Your task to perform on an android device: Go to settings Image 0: 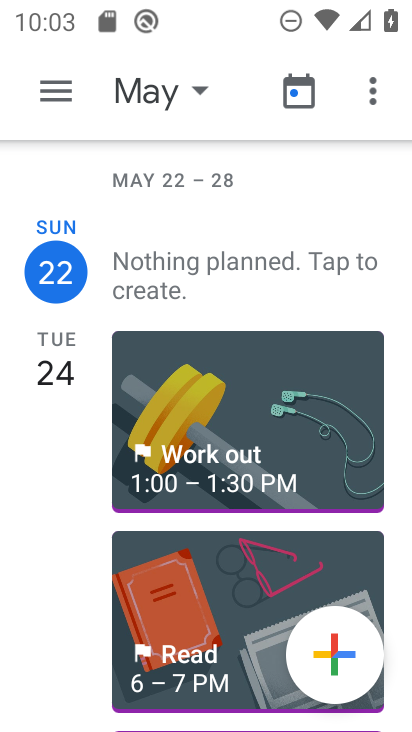
Step 0: press home button
Your task to perform on an android device: Go to settings Image 1: 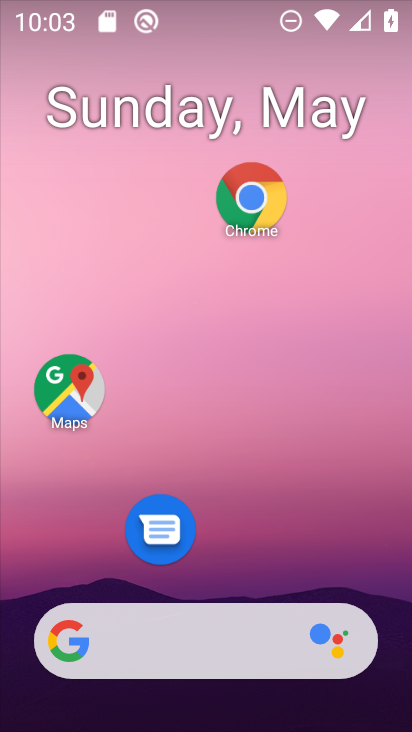
Step 1: drag from (254, 561) to (364, 101)
Your task to perform on an android device: Go to settings Image 2: 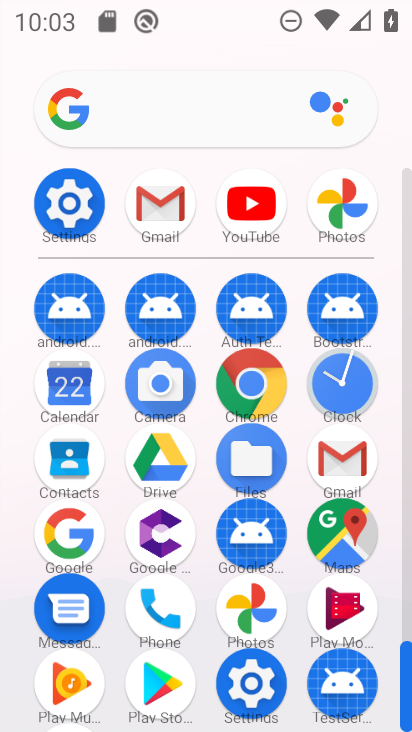
Step 2: click (71, 207)
Your task to perform on an android device: Go to settings Image 3: 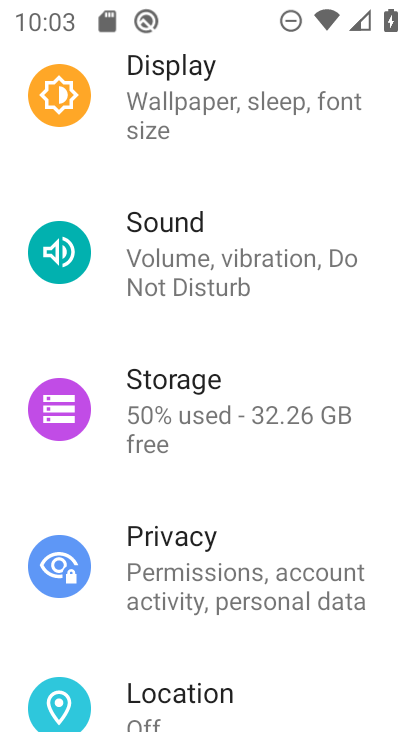
Step 3: task complete